Your task to perform on an android device: Search for apple airpods pro on newegg, select the first entry, add it to the cart, then select checkout. Image 0: 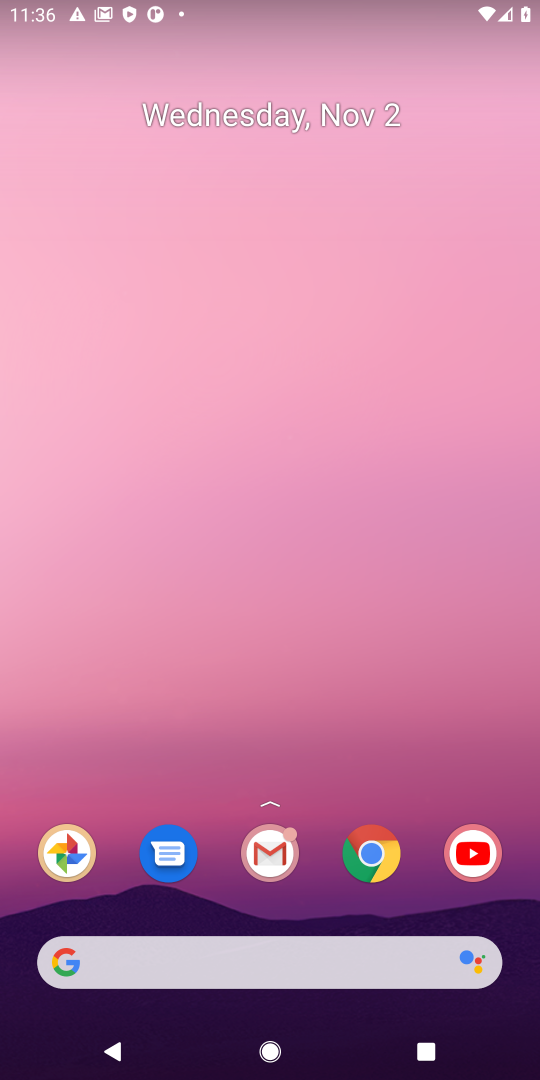
Step 0: click (374, 853)
Your task to perform on an android device: Search for apple airpods pro on newegg, select the first entry, add it to the cart, then select checkout. Image 1: 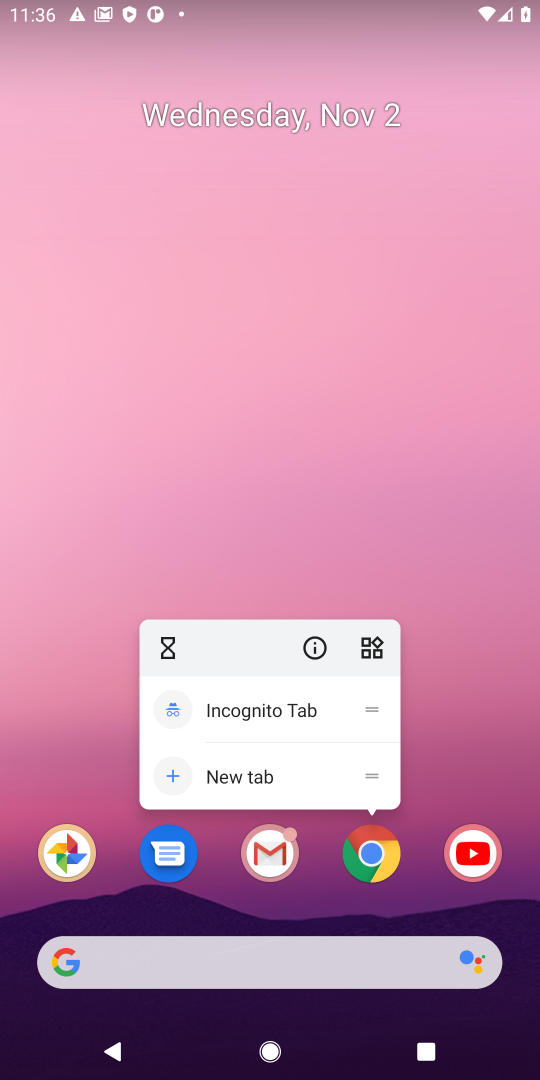
Step 1: click (370, 857)
Your task to perform on an android device: Search for apple airpods pro on newegg, select the first entry, add it to the cart, then select checkout. Image 2: 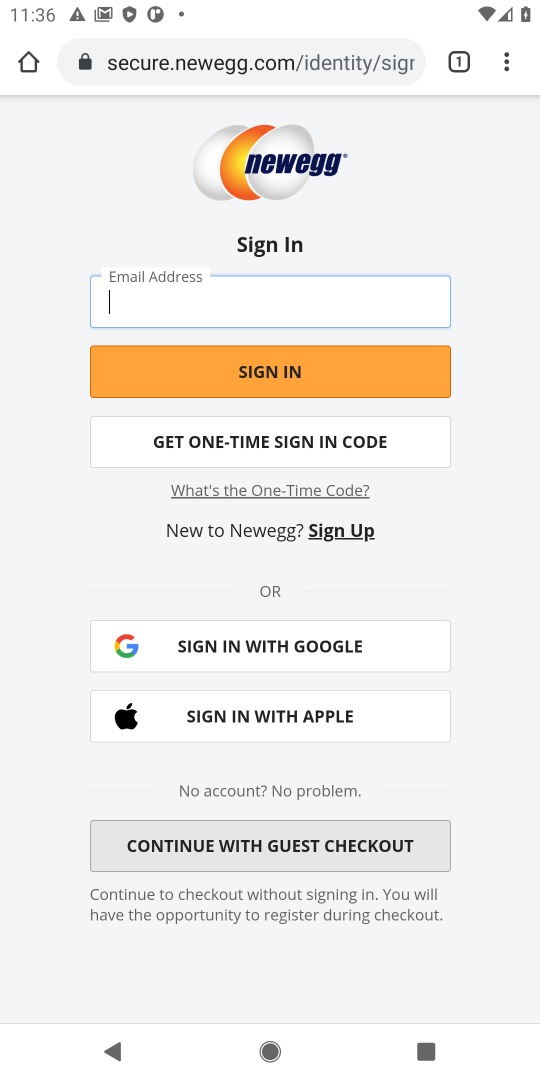
Step 2: press back button
Your task to perform on an android device: Search for apple airpods pro on newegg, select the first entry, add it to the cart, then select checkout. Image 3: 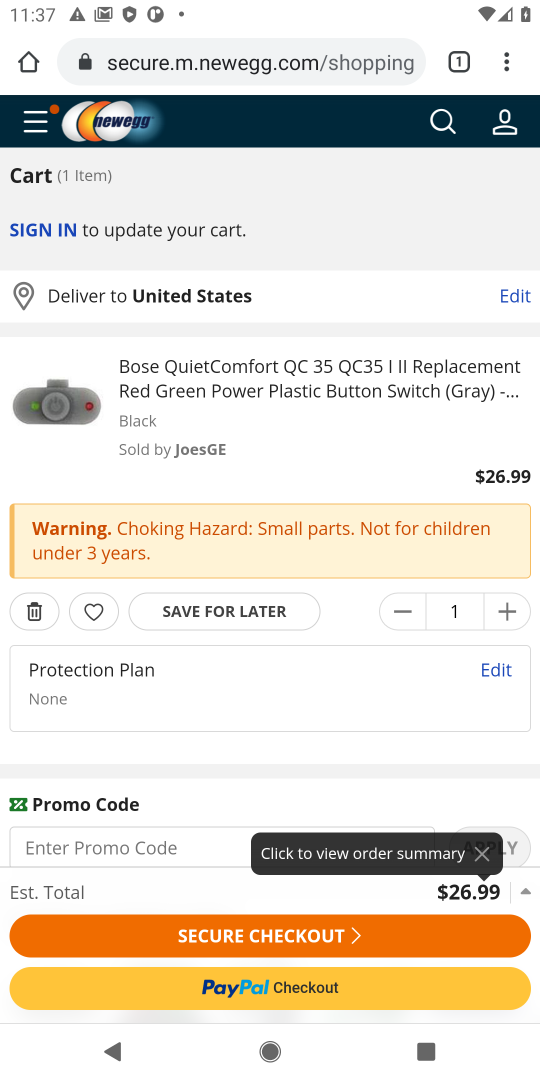
Step 3: click (441, 123)
Your task to perform on an android device: Search for apple airpods pro on newegg, select the first entry, add it to the cart, then select checkout. Image 4: 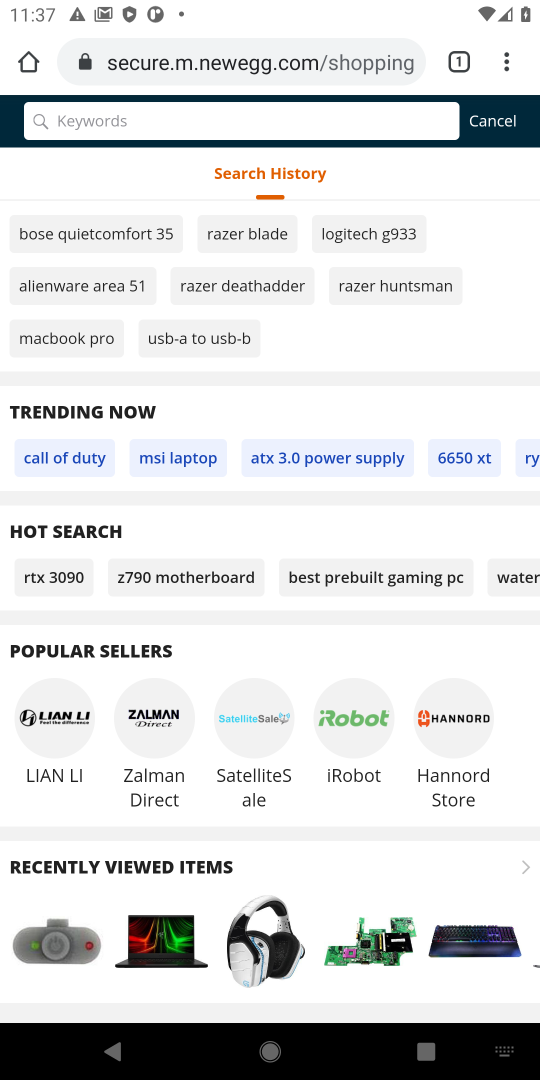
Step 4: type " apple airpods pro"
Your task to perform on an android device: Search for apple airpods pro on newegg, select the first entry, add it to the cart, then select checkout. Image 5: 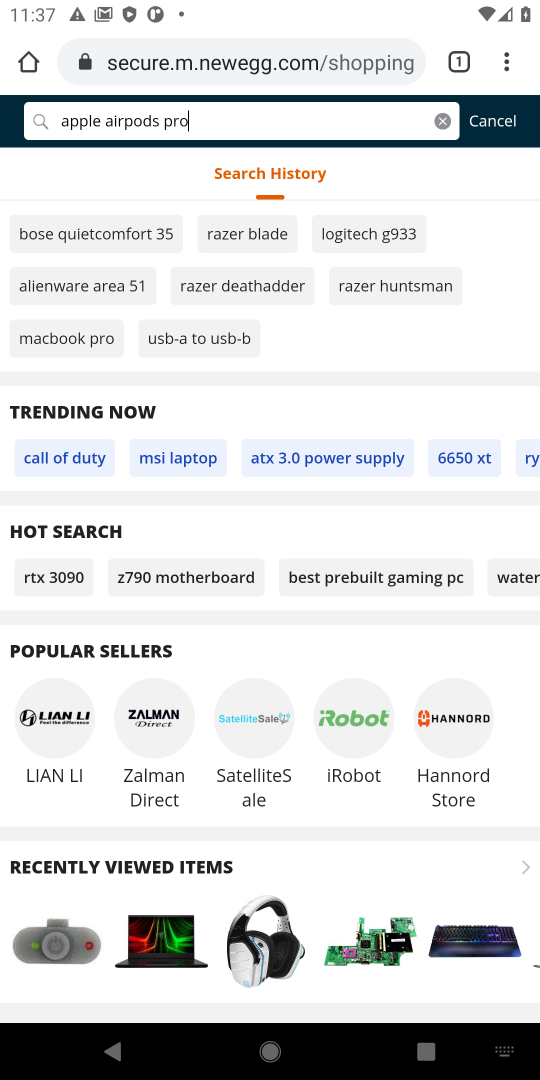
Step 5: press enter
Your task to perform on an android device: Search for apple airpods pro on newegg, select the first entry, add it to the cart, then select checkout. Image 6: 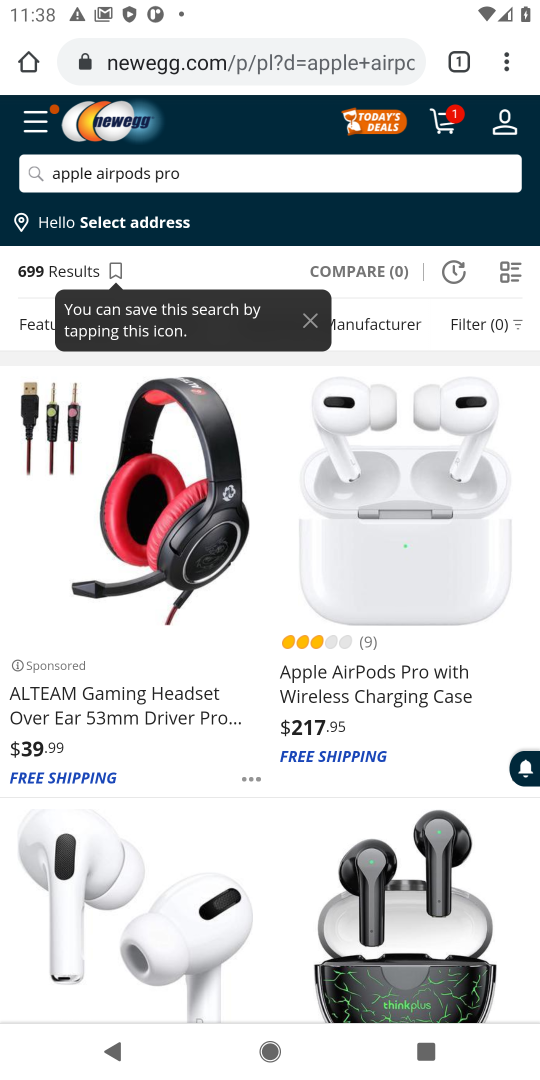
Step 6: drag from (152, 836) to (193, 1030)
Your task to perform on an android device: Search for apple airpods pro on newegg, select the first entry, add it to the cart, then select checkout. Image 7: 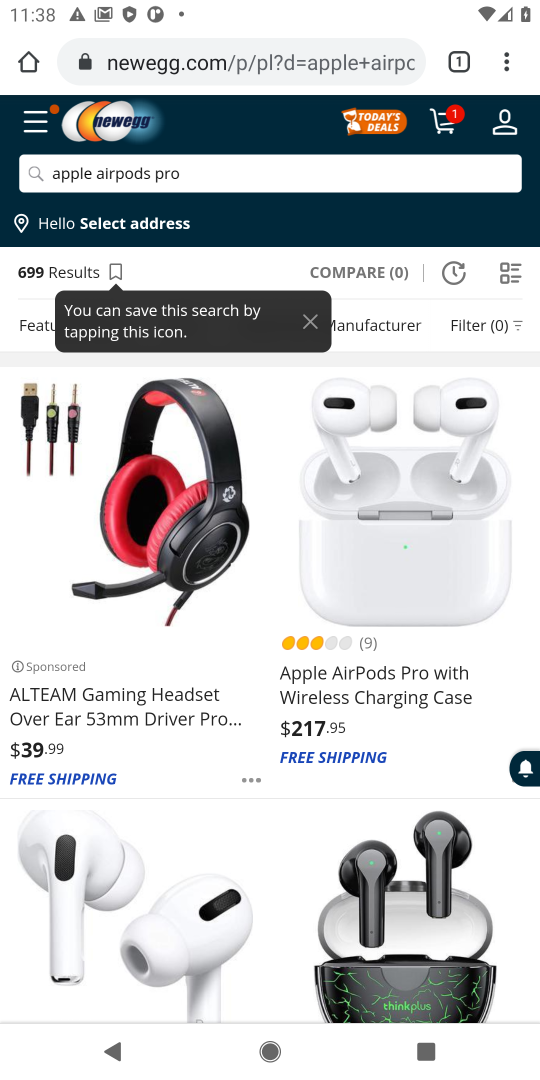
Step 7: click (136, 581)
Your task to perform on an android device: Search for apple airpods pro on newegg, select the first entry, add it to the cart, then select checkout. Image 8: 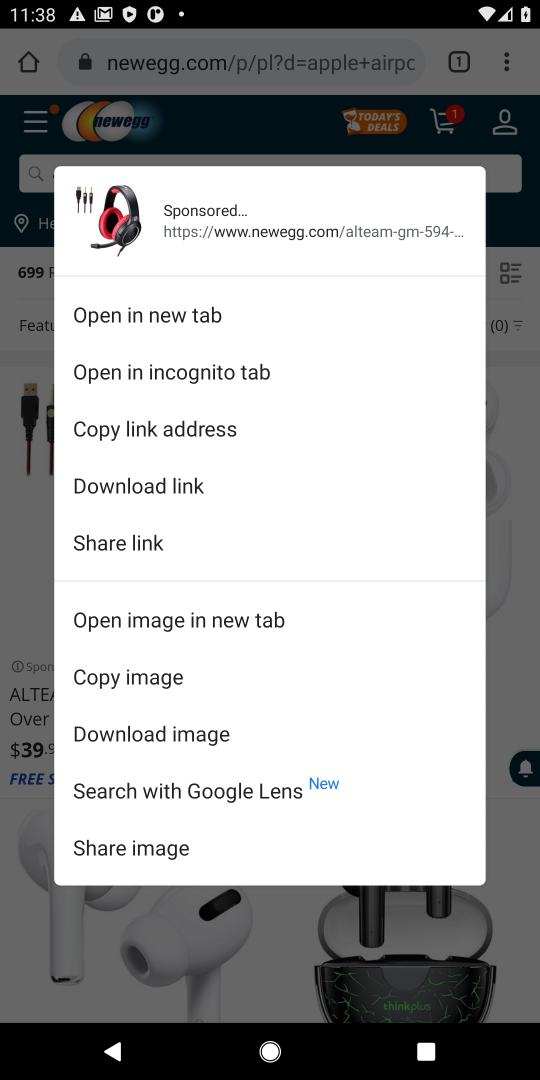
Step 8: click (15, 565)
Your task to perform on an android device: Search for apple airpods pro on newegg, select the first entry, add it to the cart, then select checkout. Image 9: 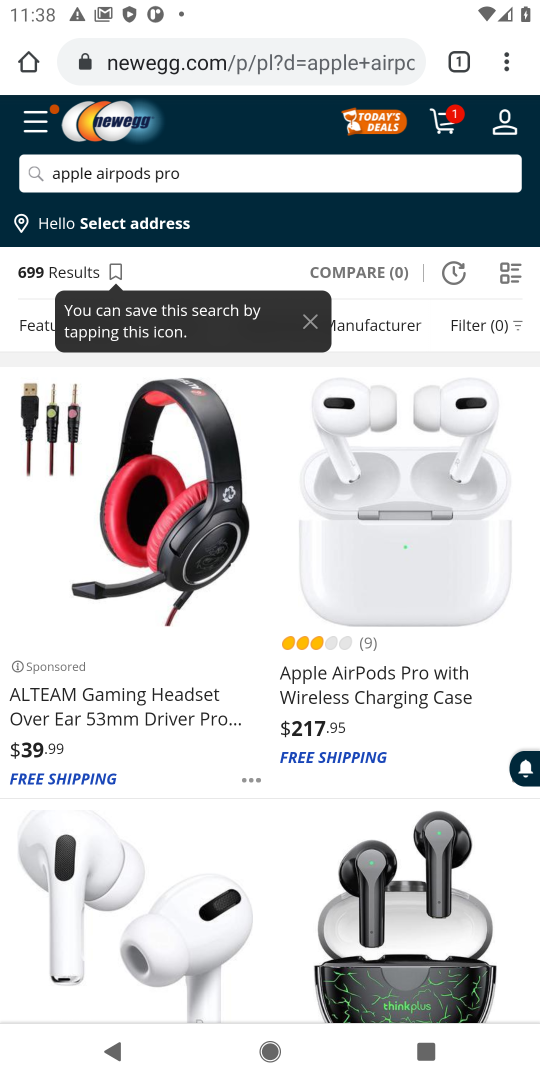
Step 9: click (147, 506)
Your task to perform on an android device: Search for apple airpods pro on newegg, select the first entry, add it to the cart, then select checkout. Image 10: 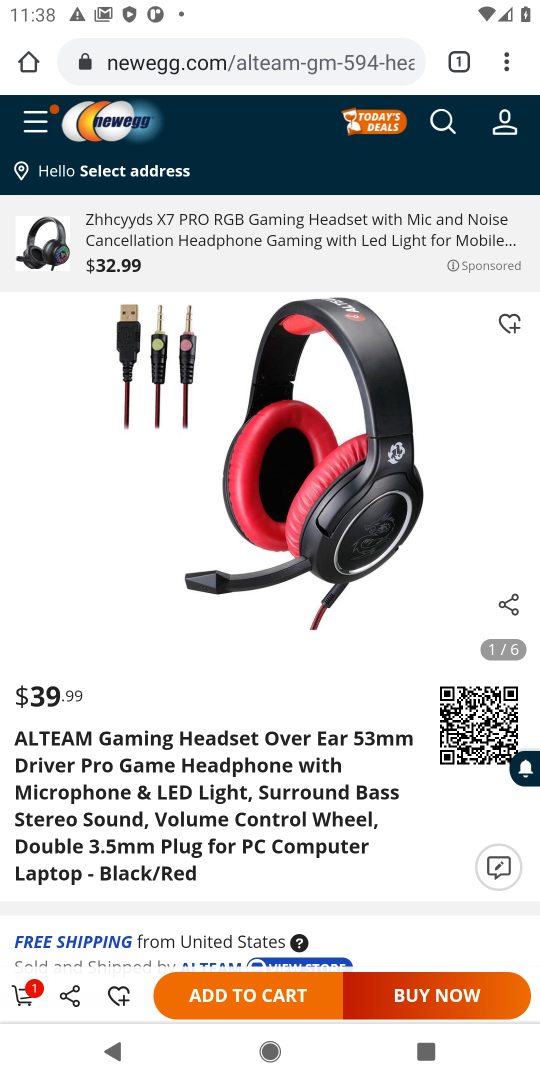
Step 10: task complete